Your task to perform on an android device: check storage Image 0: 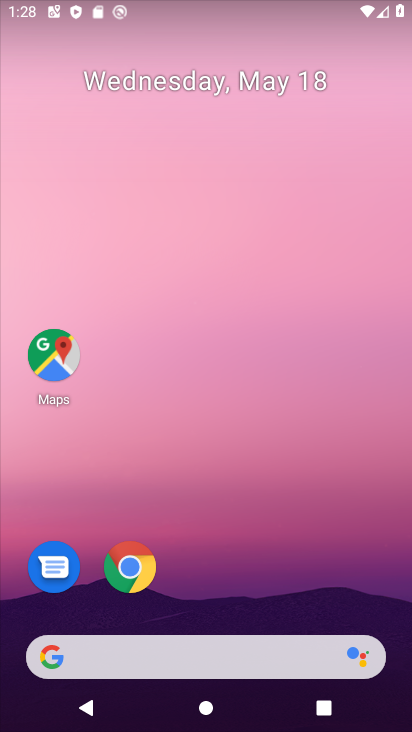
Step 0: drag from (290, 581) to (301, 128)
Your task to perform on an android device: check storage Image 1: 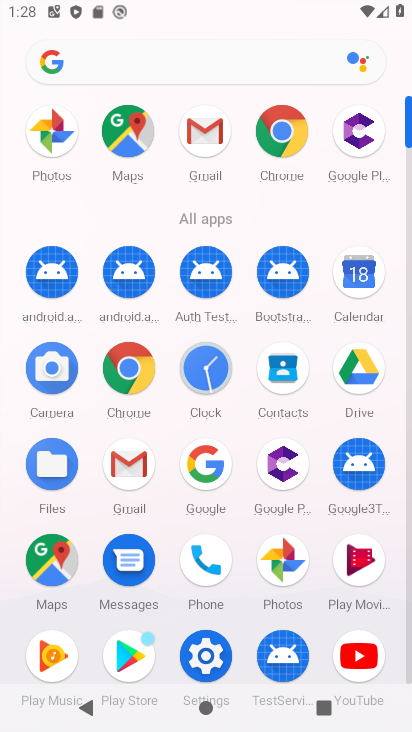
Step 1: click (212, 671)
Your task to perform on an android device: check storage Image 2: 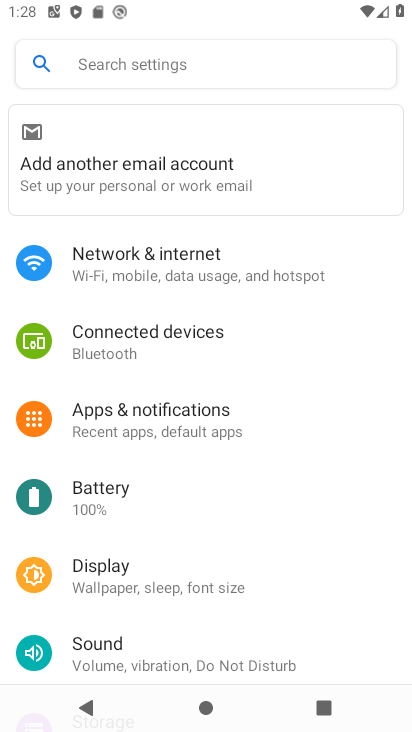
Step 2: drag from (247, 606) to (310, 174)
Your task to perform on an android device: check storage Image 3: 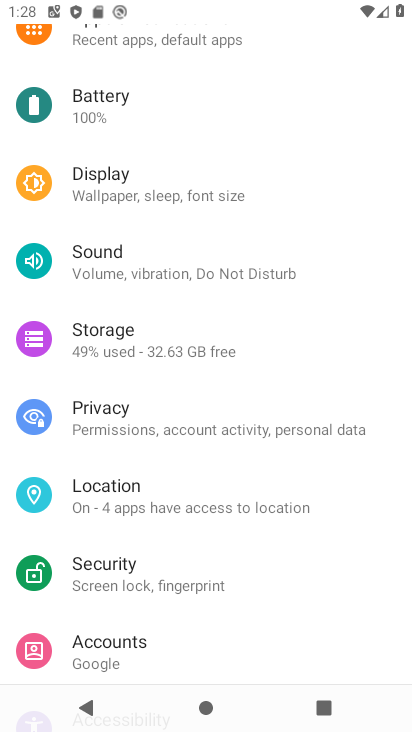
Step 3: drag from (209, 513) to (286, 652)
Your task to perform on an android device: check storage Image 4: 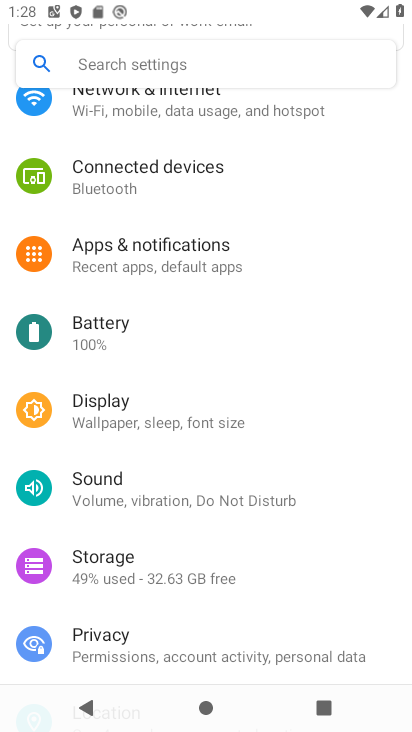
Step 4: drag from (221, 139) to (176, 588)
Your task to perform on an android device: check storage Image 5: 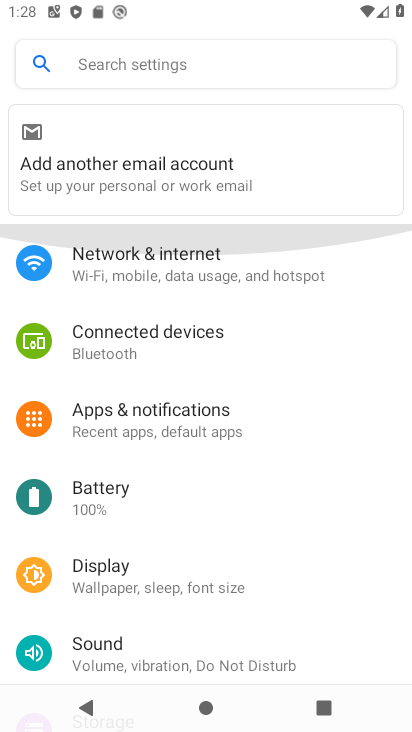
Step 5: drag from (177, 586) to (308, 219)
Your task to perform on an android device: check storage Image 6: 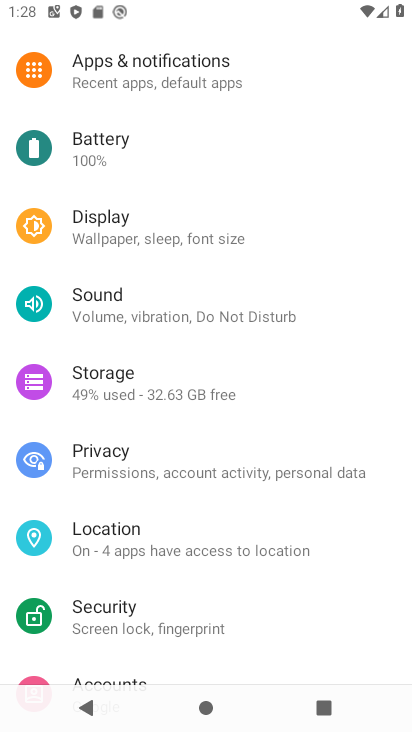
Step 6: click (129, 383)
Your task to perform on an android device: check storage Image 7: 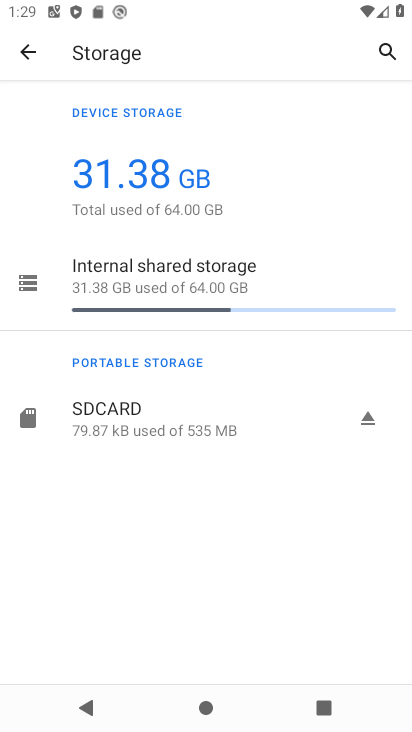
Step 7: task complete